Your task to perform on an android device: set the stopwatch Image 0: 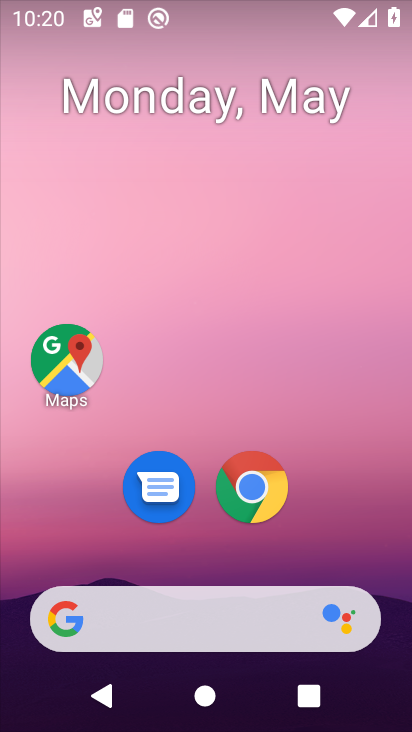
Step 0: drag from (319, 509) to (349, 44)
Your task to perform on an android device: set the stopwatch Image 1: 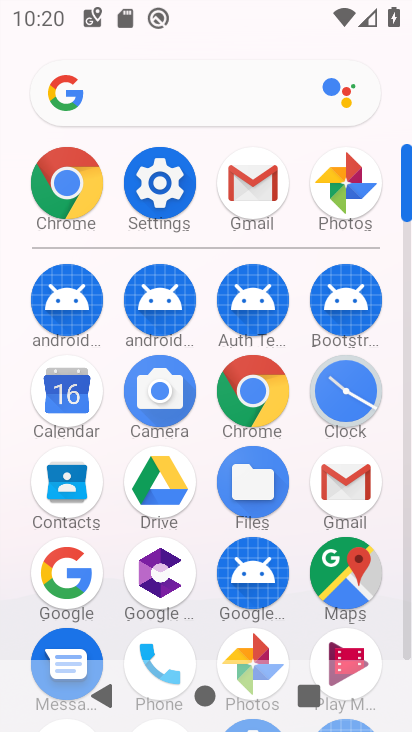
Step 1: click (349, 386)
Your task to perform on an android device: set the stopwatch Image 2: 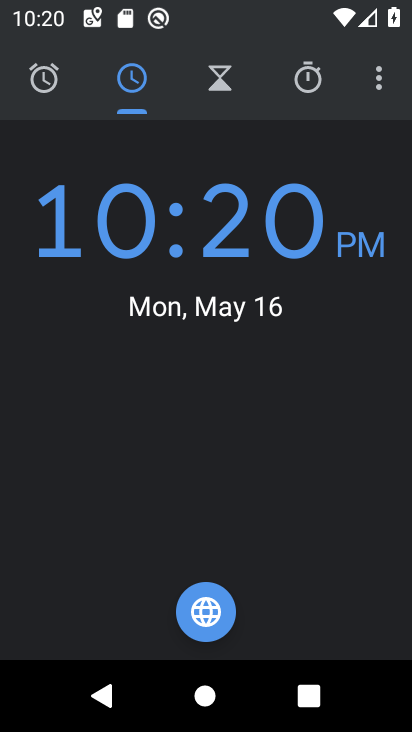
Step 2: click (319, 71)
Your task to perform on an android device: set the stopwatch Image 3: 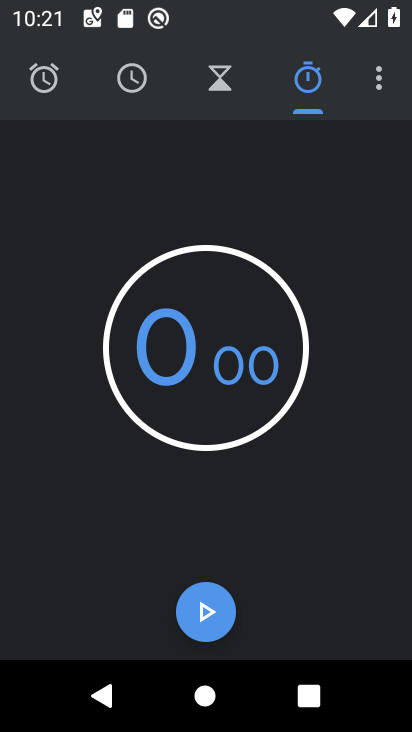
Step 3: click (200, 607)
Your task to perform on an android device: set the stopwatch Image 4: 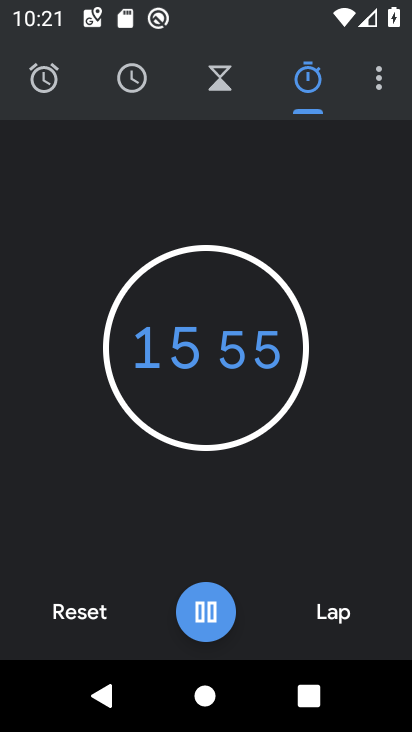
Step 4: task complete